Your task to perform on an android device: toggle show notifications on the lock screen Image 0: 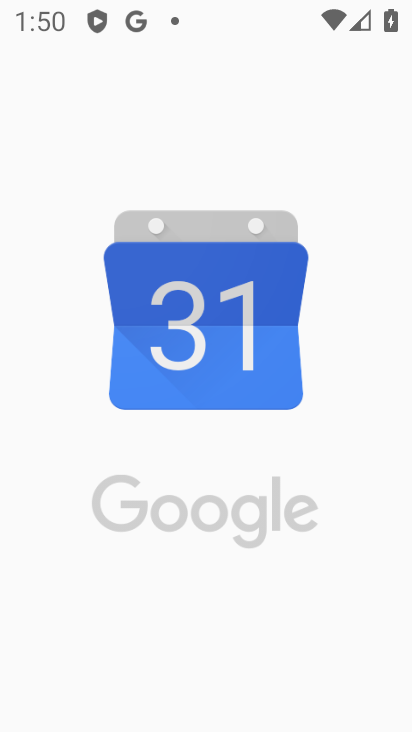
Step 0: drag from (378, 525) to (352, 118)
Your task to perform on an android device: toggle show notifications on the lock screen Image 1: 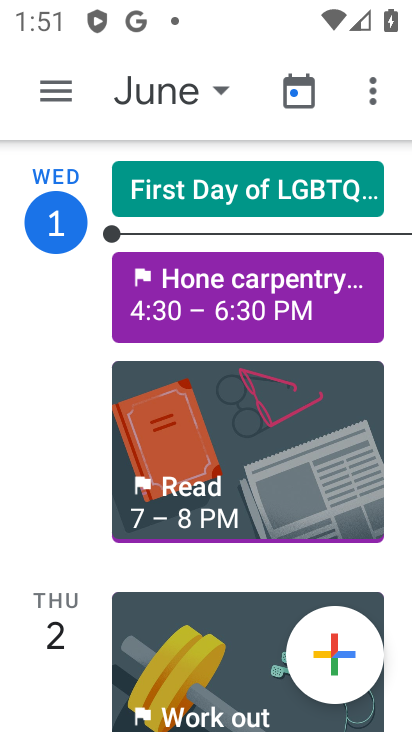
Step 1: press home button
Your task to perform on an android device: toggle show notifications on the lock screen Image 2: 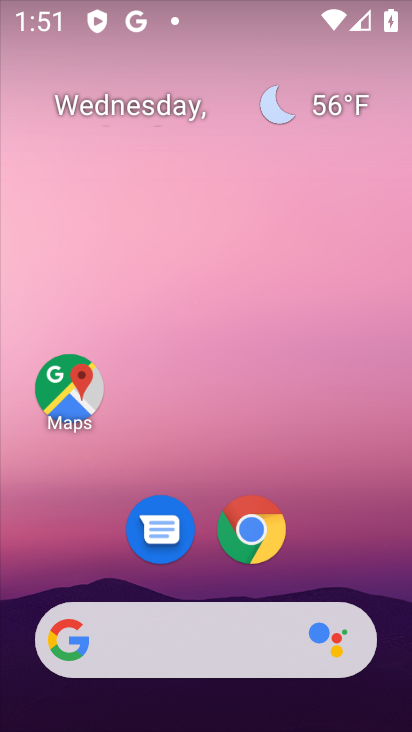
Step 2: drag from (344, 514) to (306, 160)
Your task to perform on an android device: toggle show notifications on the lock screen Image 3: 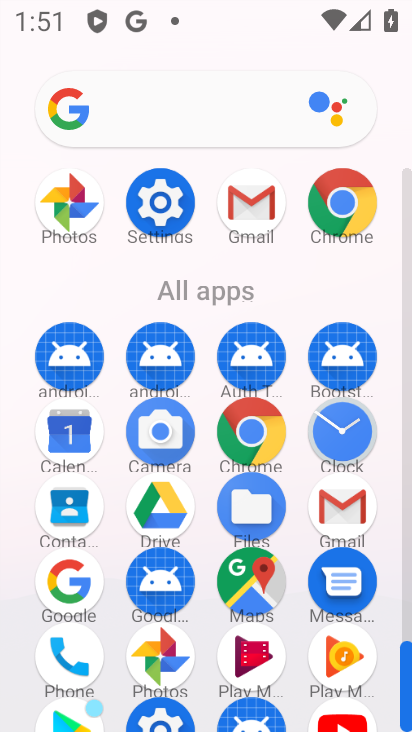
Step 3: click (155, 213)
Your task to perform on an android device: toggle show notifications on the lock screen Image 4: 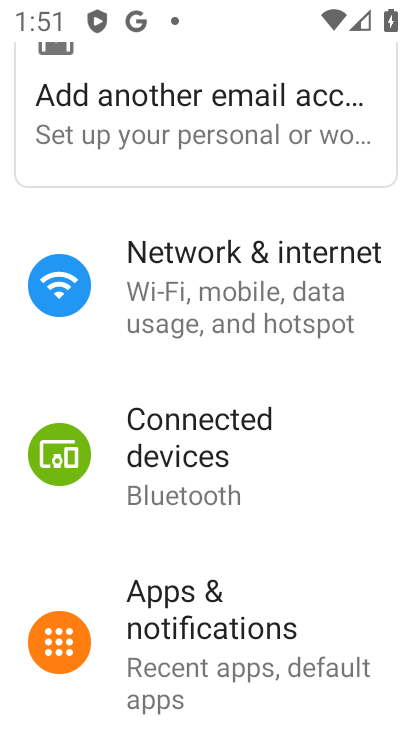
Step 4: drag from (209, 518) to (223, 370)
Your task to perform on an android device: toggle show notifications on the lock screen Image 5: 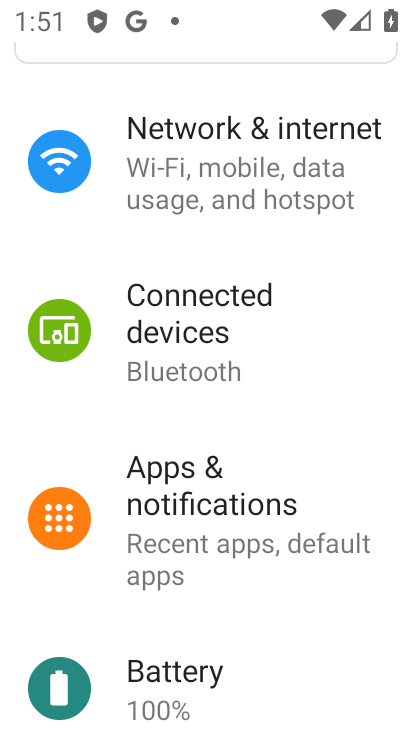
Step 5: click (187, 493)
Your task to perform on an android device: toggle show notifications on the lock screen Image 6: 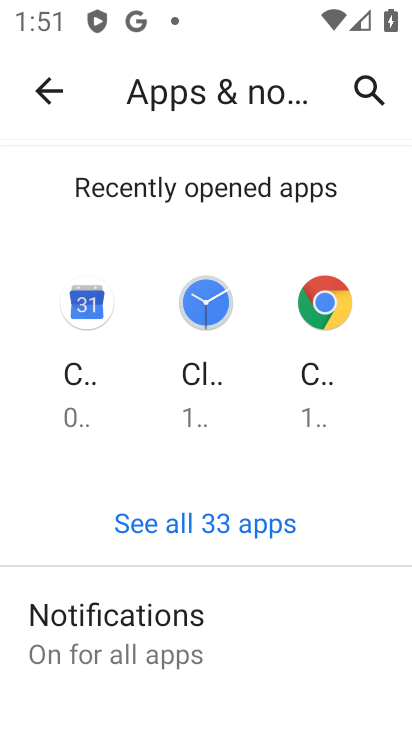
Step 6: drag from (209, 596) to (211, 440)
Your task to perform on an android device: toggle show notifications on the lock screen Image 7: 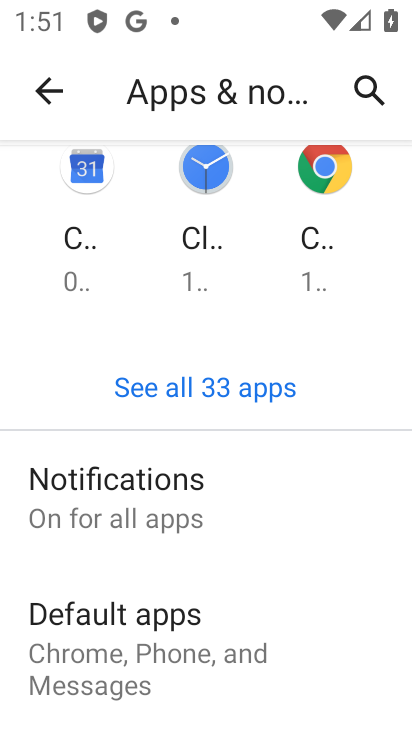
Step 7: click (186, 548)
Your task to perform on an android device: toggle show notifications on the lock screen Image 8: 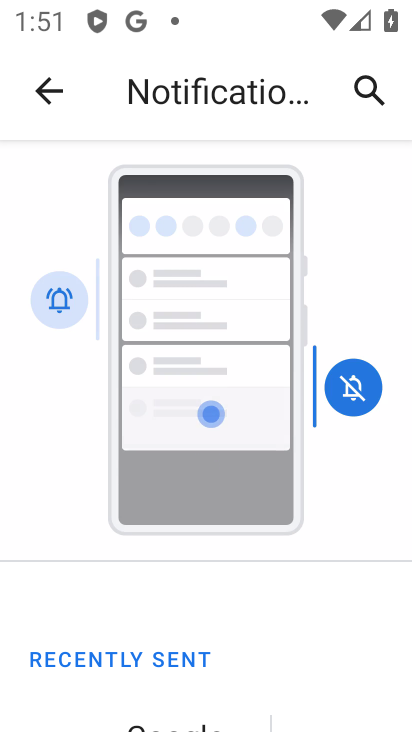
Step 8: drag from (186, 548) to (199, 74)
Your task to perform on an android device: toggle show notifications on the lock screen Image 9: 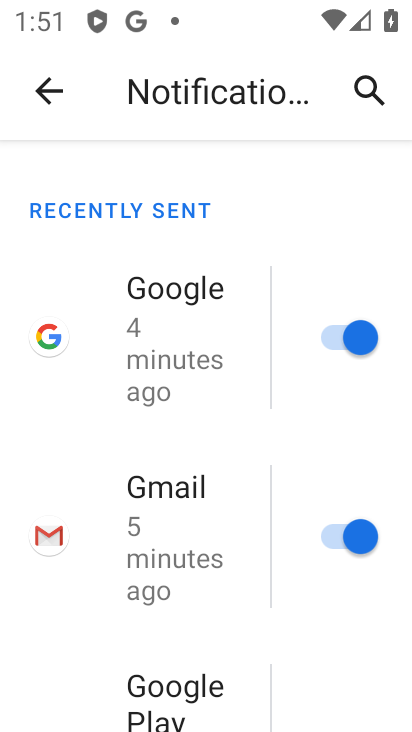
Step 9: drag from (211, 631) to (268, 172)
Your task to perform on an android device: toggle show notifications on the lock screen Image 10: 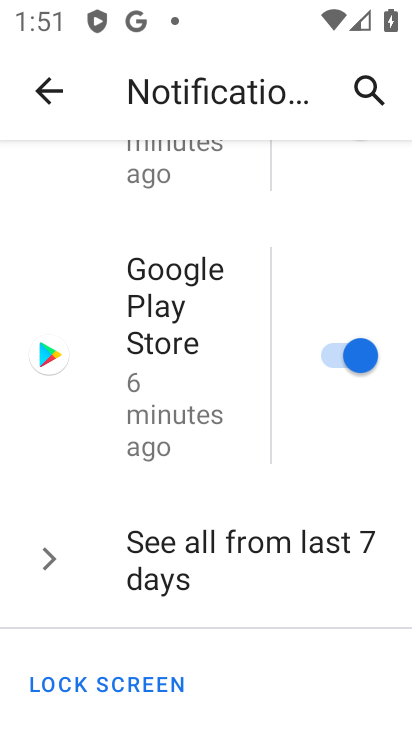
Step 10: drag from (232, 620) to (284, 234)
Your task to perform on an android device: toggle show notifications on the lock screen Image 11: 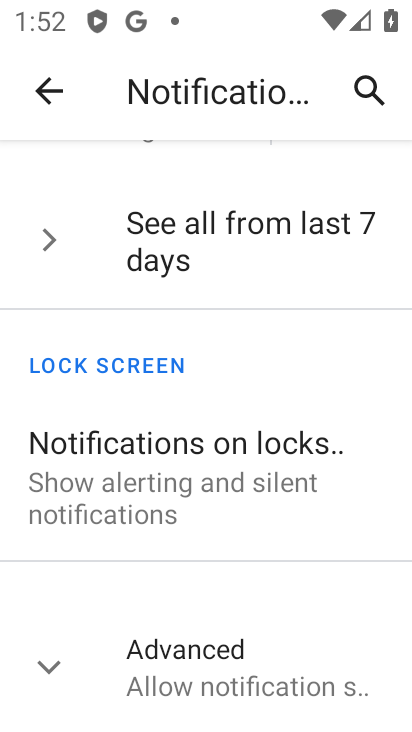
Step 11: click (172, 488)
Your task to perform on an android device: toggle show notifications on the lock screen Image 12: 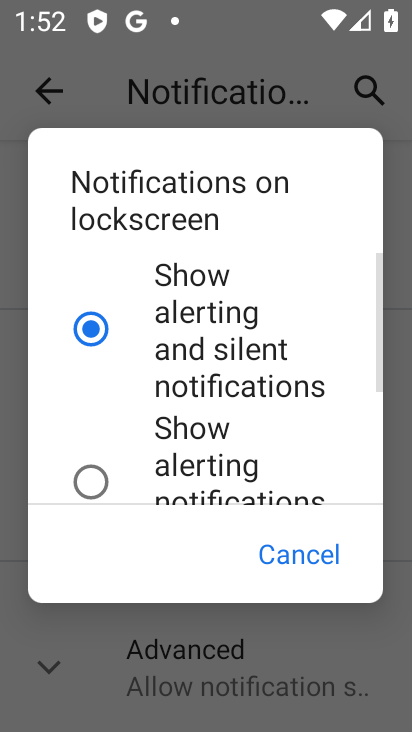
Step 12: drag from (222, 485) to (215, 155)
Your task to perform on an android device: toggle show notifications on the lock screen Image 13: 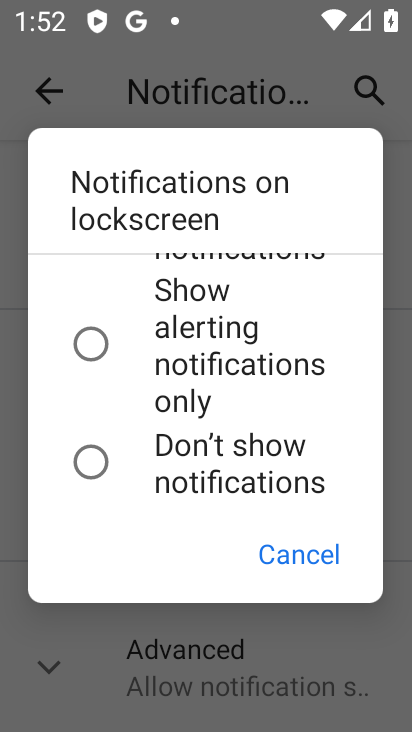
Step 13: click (96, 456)
Your task to perform on an android device: toggle show notifications on the lock screen Image 14: 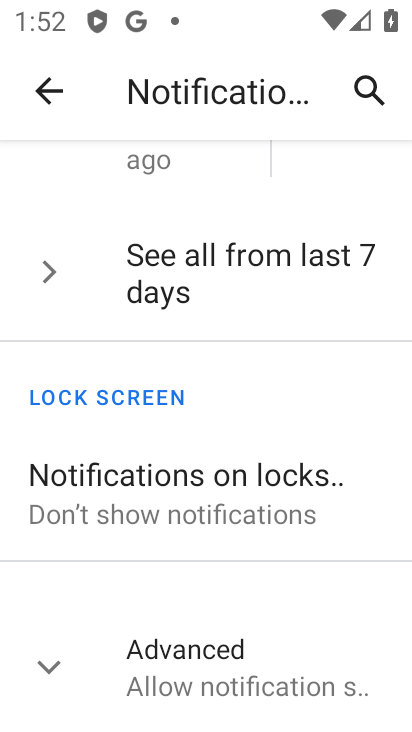
Step 14: task complete